Your task to perform on an android device: Search for seafood restaurants on Google Maps Image 0: 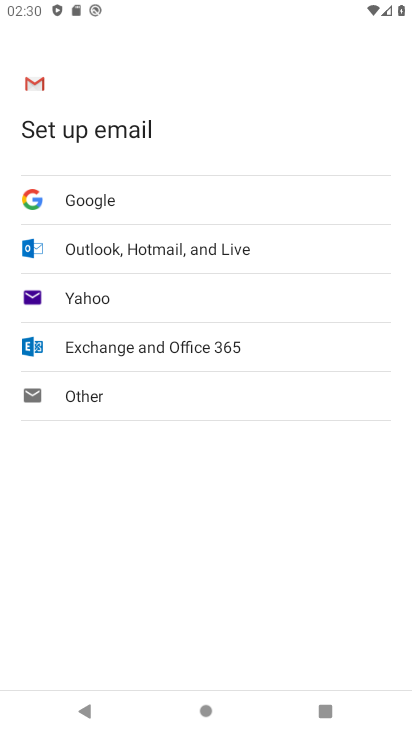
Step 0: press home button
Your task to perform on an android device: Search for seafood restaurants on Google Maps Image 1: 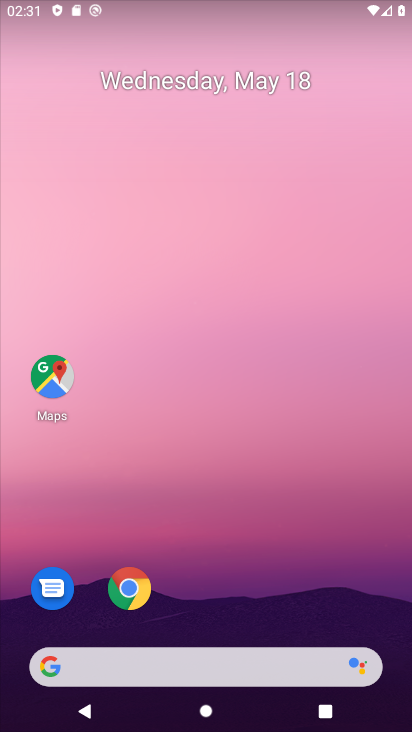
Step 1: click (35, 388)
Your task to perform on an android device: Search for seafood restaurants on Google Maps Image 2: 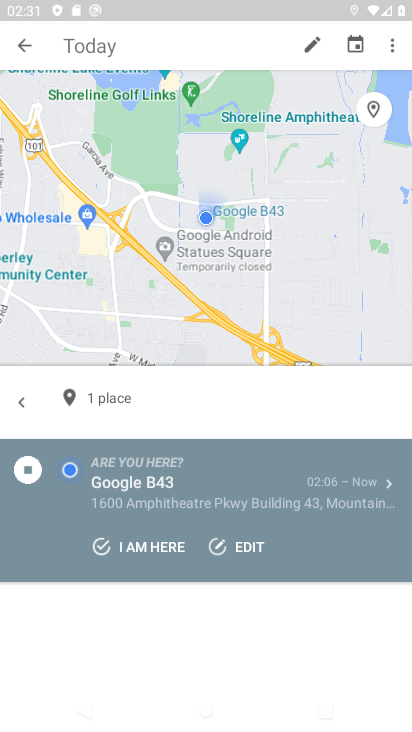
Step 2: click (23, 45)
Your task to perform on an android device: Search for seafood restaurants on Google Maps Image 3: 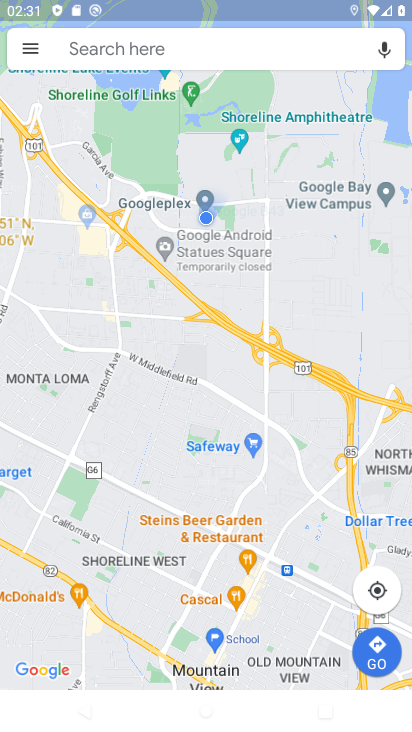
Step 3: click (115, 37)
Your task to perform on an android device: Search for seafood restaurants on Google Maps Image 4: 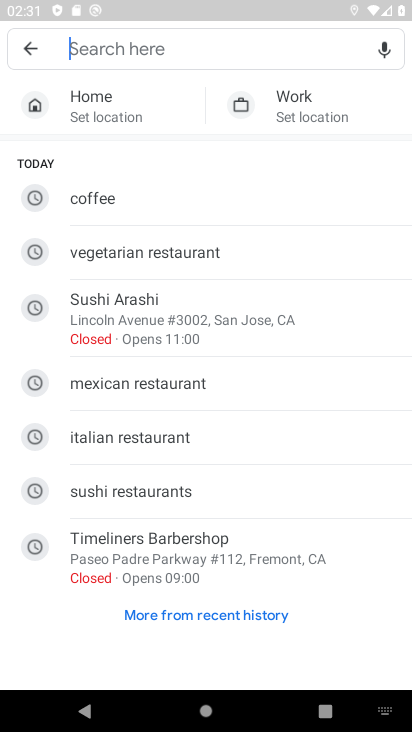
Step 4: drag from (57, 555) to (184, 169)
Your task to perform on an android device: Search for seafood restaurants on Google Maps Image 5: 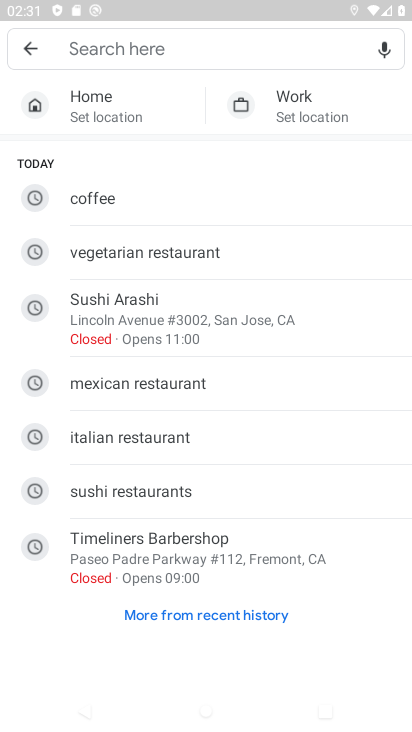
Step 5: click (178, 44)
Your task to perform on an android device: Search for seafood restaurants on Google Maps Image 6: 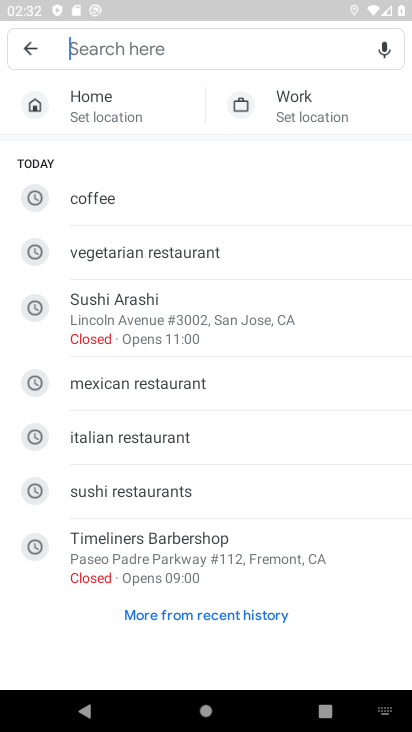
Step 6: type "seafood restaurants"
Your task to perform on an android device: Search for seafood restaurants on Google Maps Image 7: 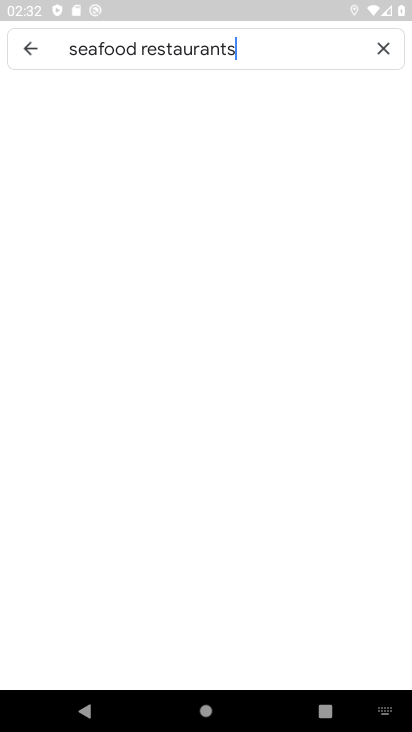
Step 7: type ""
Your task to perform on an android device: Search for seafood restaurants on Google Maps Image 8: 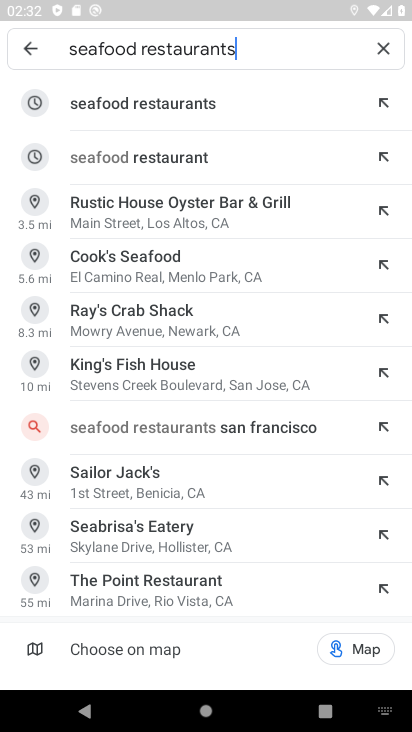
Step 8: click (155, 91)
Your task to perform on an android device: Search for seafood restaurants on Google Maps Image 9: 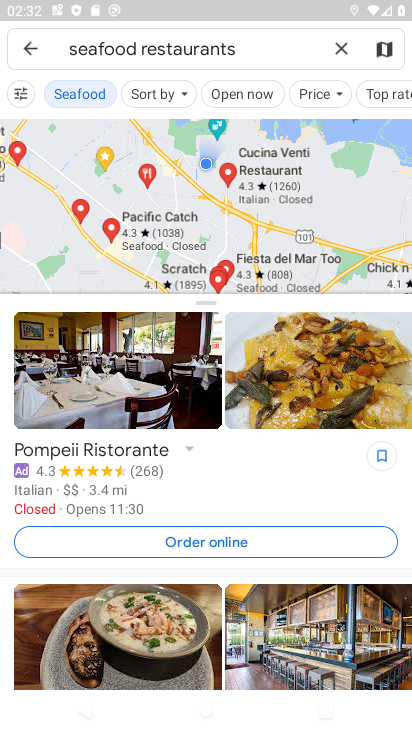
Step 9: task complete